Your task to perform on an android device: all mails in gmail Image 0: 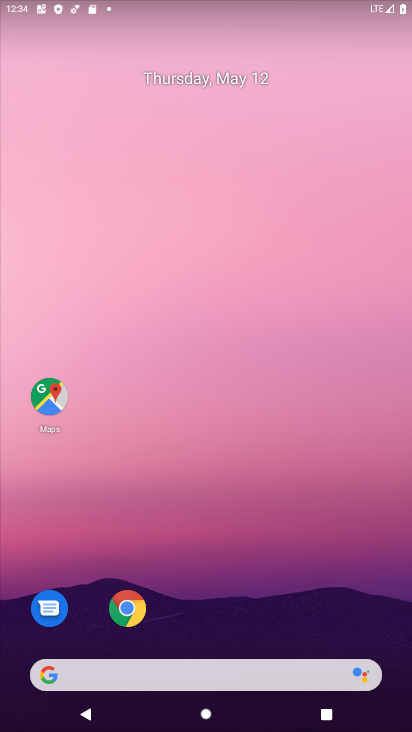
Step 0: press home button
Your task to perform on an android device: all mails in gmail Image 1: 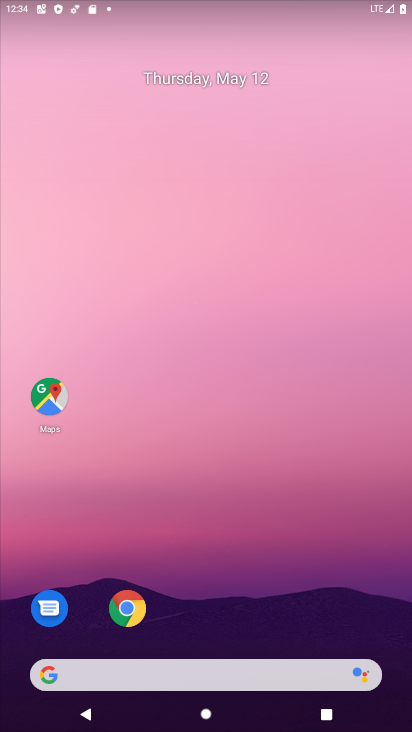
Step 1: drag from (308, 621) to (274, 21)
Your task to perform on an android device: all mails in gmail Image 2: 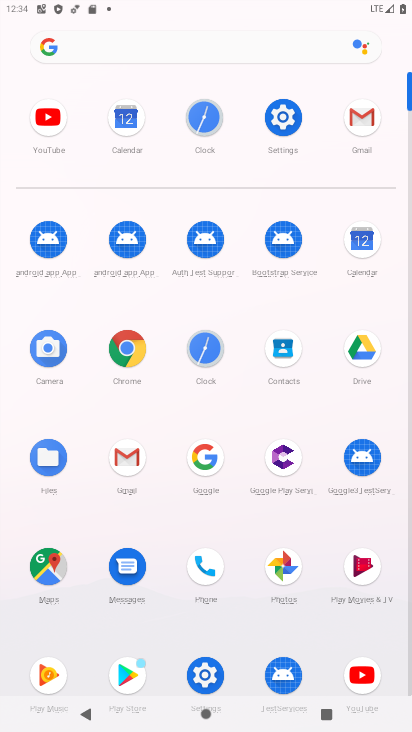
Step 2: click (354, 127)
Your task to perform on an android device: all mails in gmail Image 3: 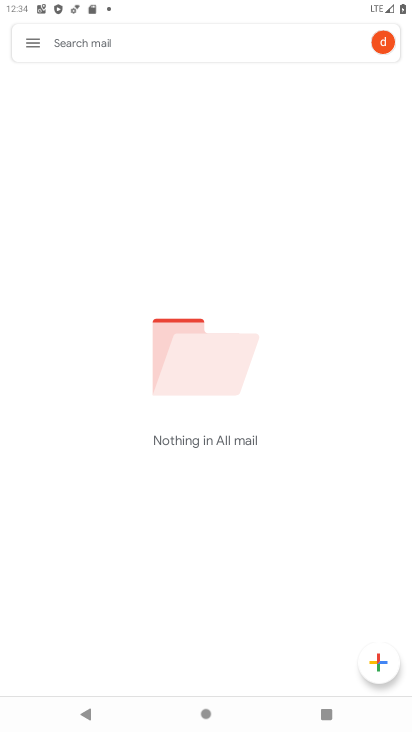
Step 3: task complete